Your task to perform on an android device: set the timer Image 0: 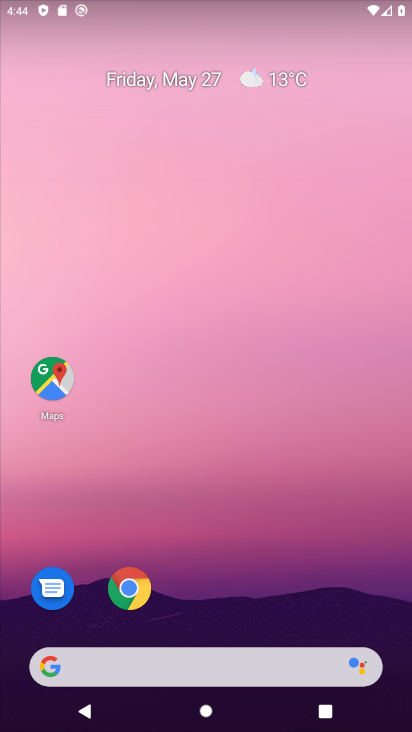
Step 0: drag from (214, 605) to (275, 130)
Your task to perform on an android device: set the timer Image 1: 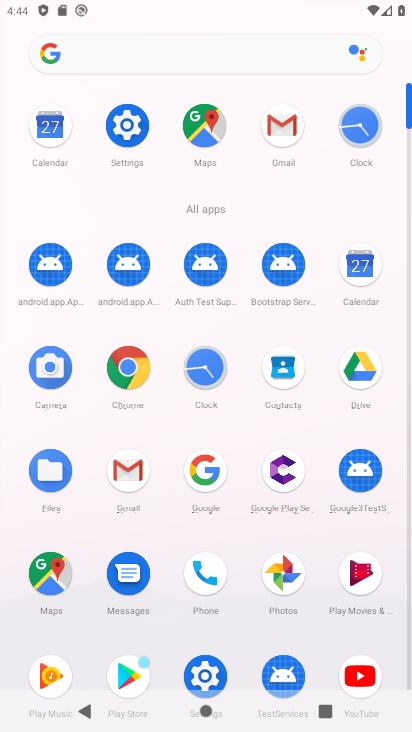
Step 1: click (194, 367)
Your task to perform on an android device: set the timer Image 2: 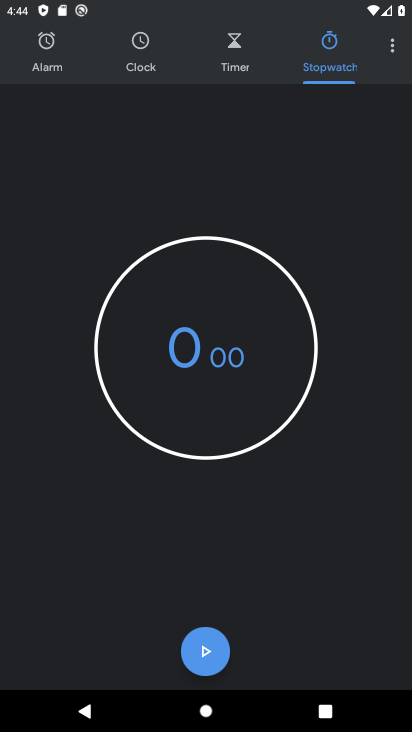
Step 2: click (239, 50)
Your task to perform on an android device: set the timer Image 3: 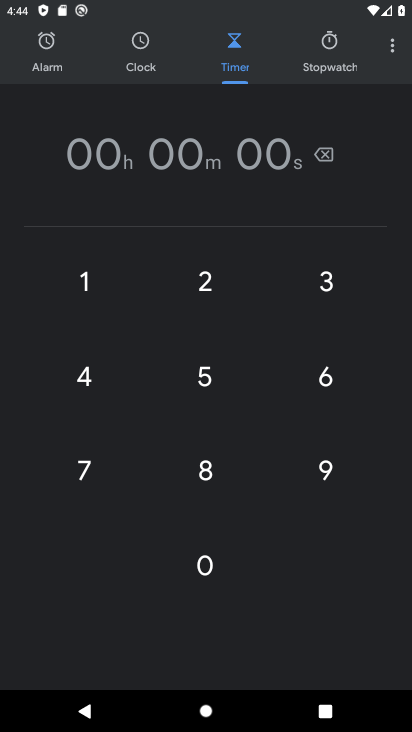
Step 3: click (206, 283)
Your task to perform on an android device: set the timer Image 4: 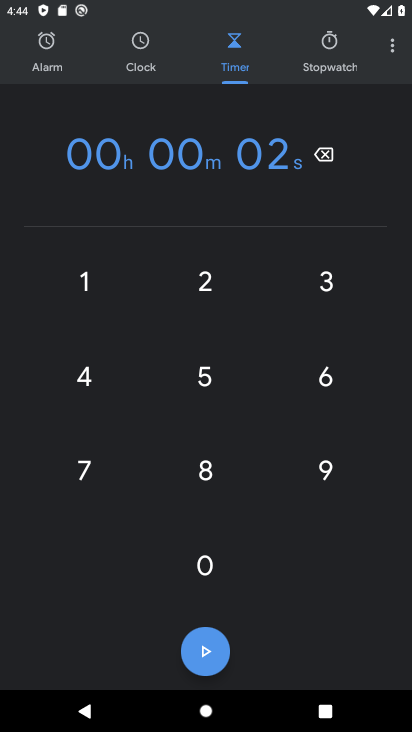
Step 4: click (310, 275)
Your task to perform on an android device: set the timer Image 5: 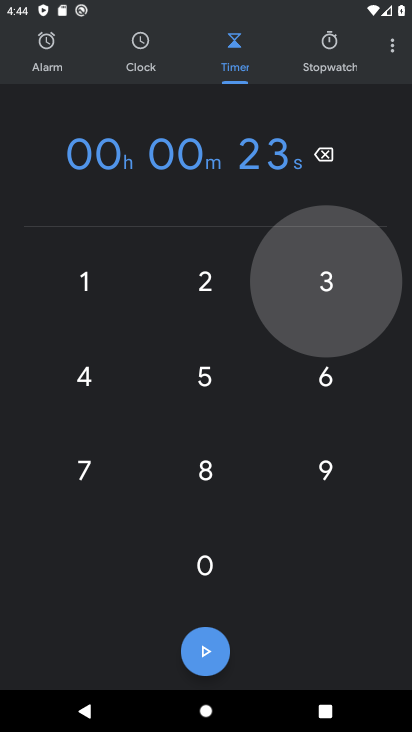
Step 5: click (191, 363)
Your task to perform on an android device: set the timer Image 6: 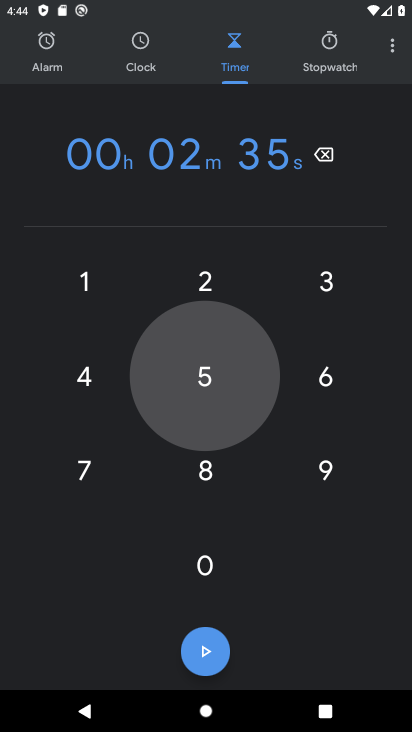
Step 6: click (336, 362)
Your task to perform on an android device: set the timer Image 7: 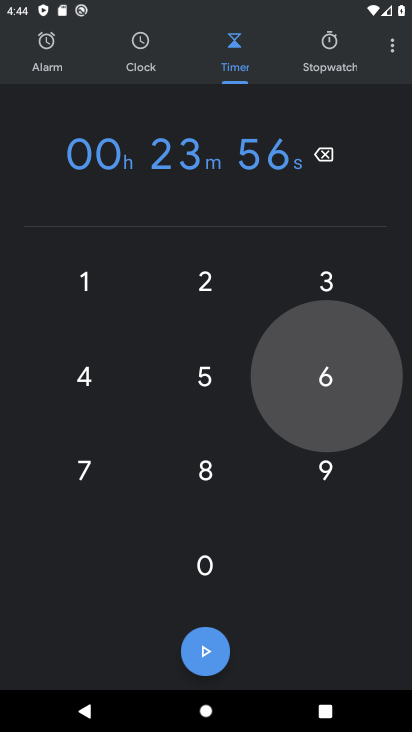
Step 7: click (215, 459)
Your task to perform on an android device: set the timer Image 8: 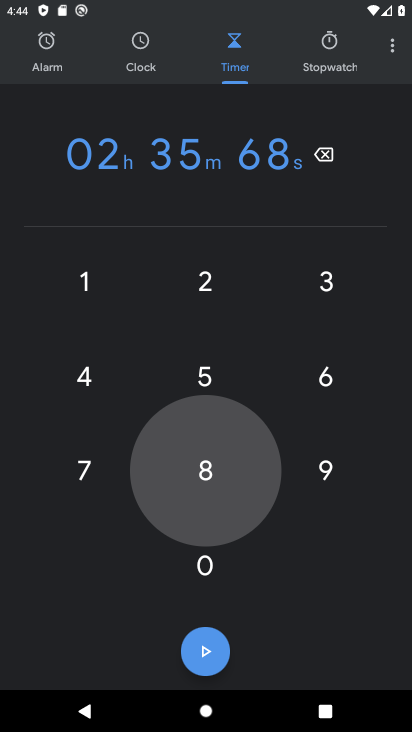
Step 8: click (322, 459)
Your task to perform on an android device: set the timer Image 9: 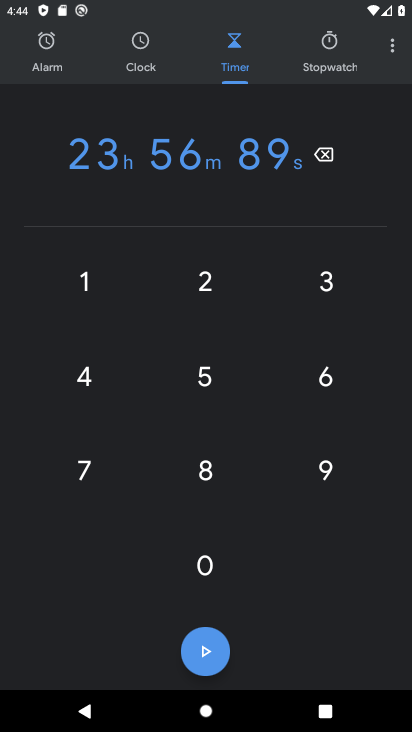
Step 9: click (190, 672)
Your task to perform on an android device: set the timer Image 10: 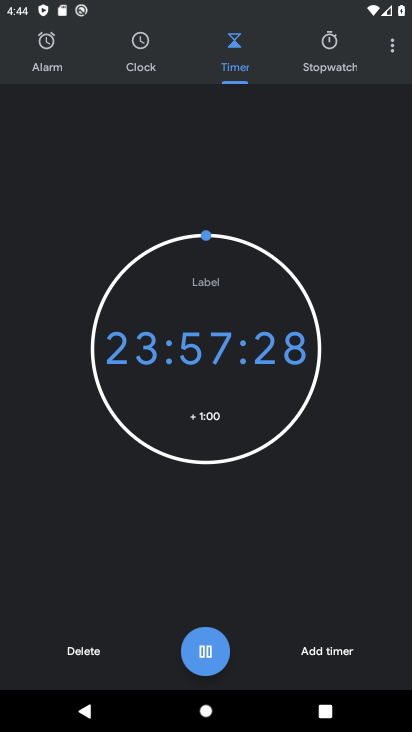
Step 10: task complete